Your task to perform on an android device: Open Google Chrome and open the bookmarks view Image 0: 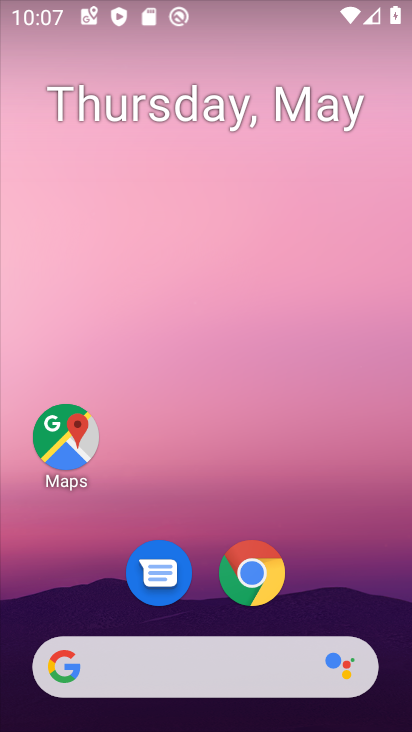
Step 0: click (271, 570)
Your task to perform on an android device: Open Google Chrome and open the bookmarks view Image 1: 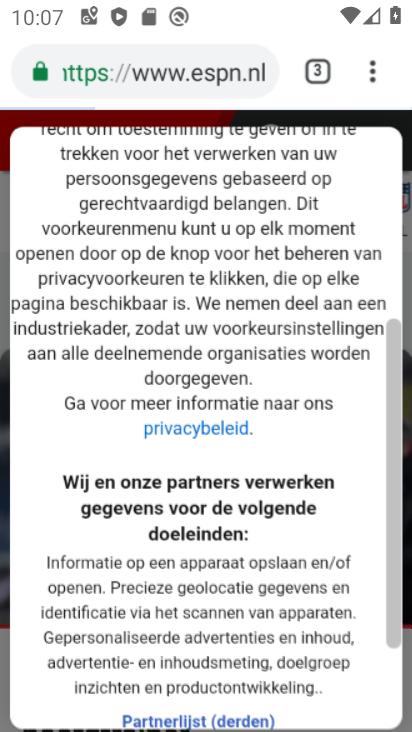
Step 1: task complete